Your task to perform on an android device: turn on improve location accuracy Image 0: 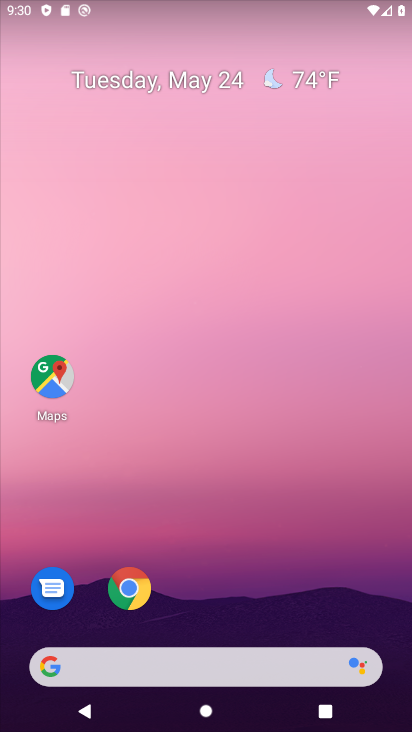
Step 0: drag from (206, 619) to (238, 171)
Your task to perform on an android device: turn on improve location accuracy Image 1: 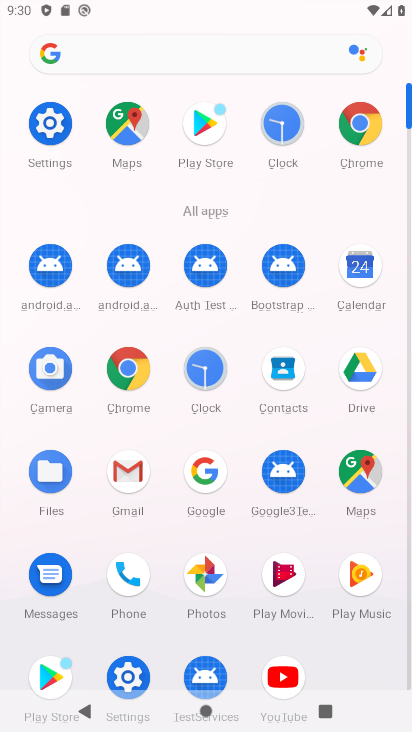
Step 1: click (56, 126)
Your task to perform on an android device: turn on improve location accuracy Image 2: 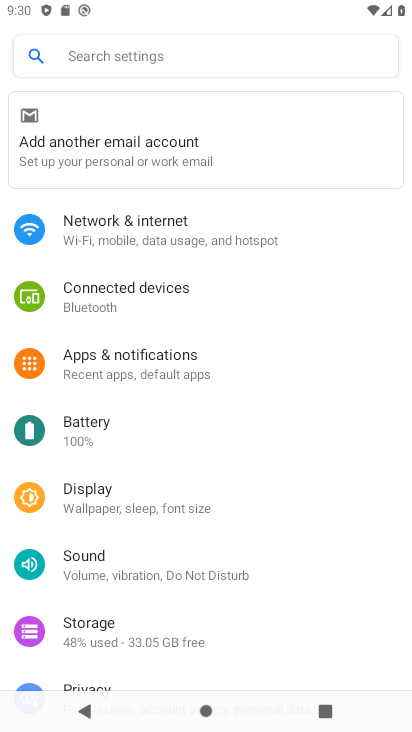
Step 2: drag from (114, 655) to (167, 275)
Your task to perform on an android device: turn on improve location accuracy Image 3: 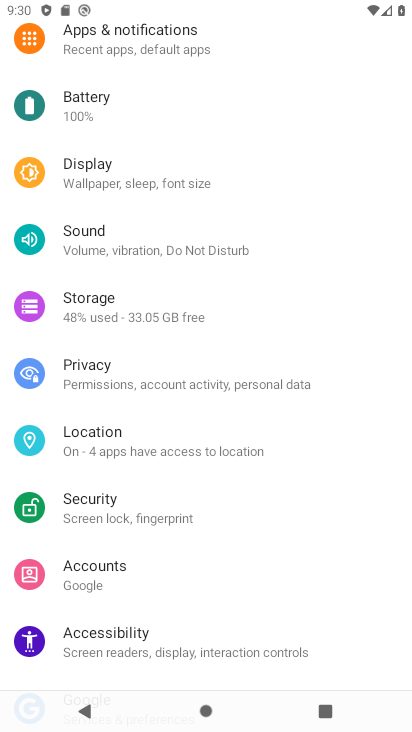
Step 3: click (147, 453)
Your task to perform on an android device: turn on improve location accuracy Image 4: 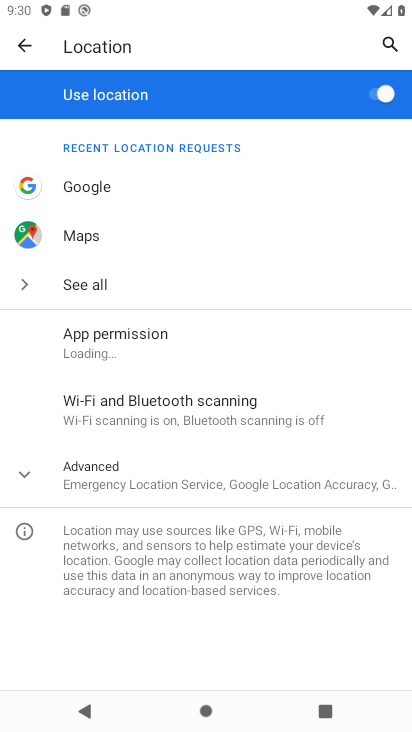
Step 4: click (170, 488)
Your task to perform on an android device: turn on improve location accuracy Image 5: 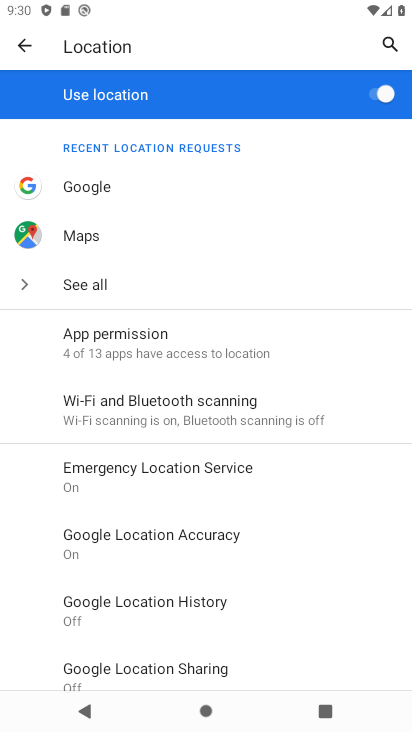
Step 5: click (127, 547)
Your task to perform on an android device: turn on improve location accuracy Image 6: 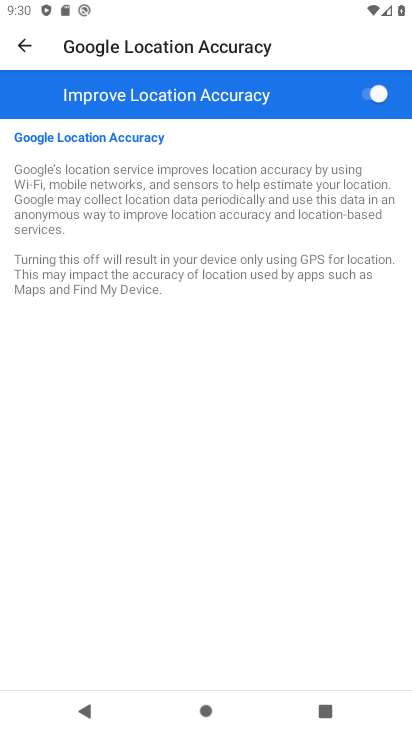
Step 6: task complete